Your task to perform on an android device: Search for vegetarian restaurants on Maps Image 0: 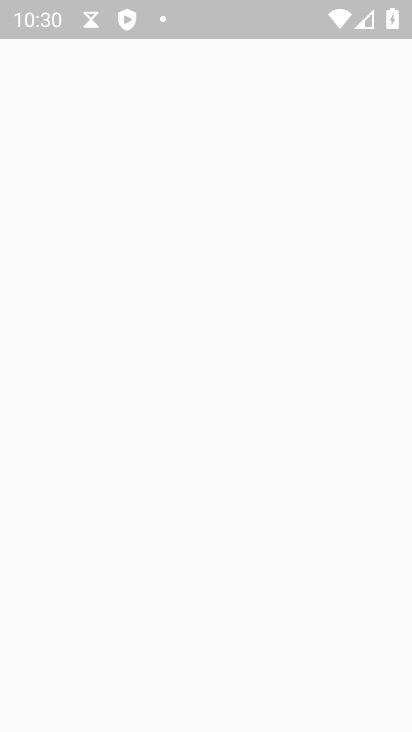
Step 0: press home button
Your task to perform on an android device: Search for vegetarian restaurants on Maps Image 1: 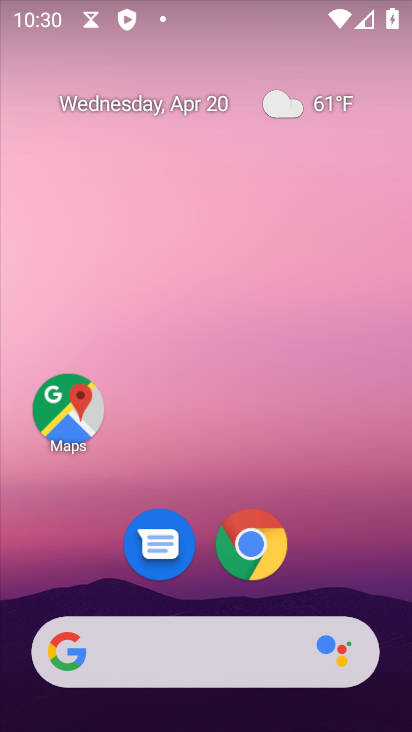
Step 1: drag from (170, 647) to (277, 194)
Your task to perform on an android device: Search for vegetarian restaurants on Maps Image 2: 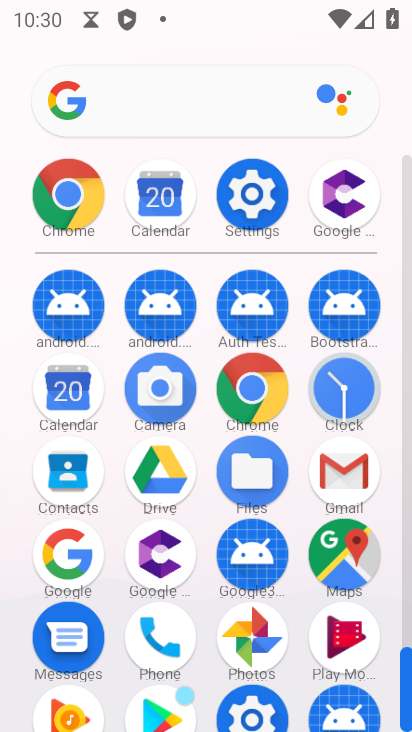
Step 2: click (339, 562)
Your task to perform on an android device: Search for vegetarian restaurants on Maps Image 3: 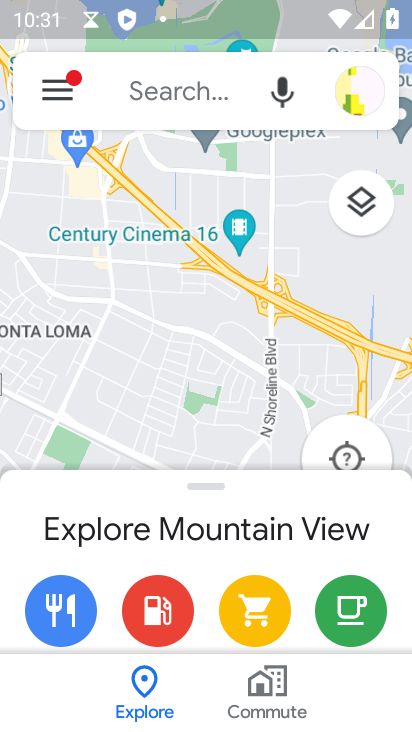
Step 3: click (178, 86)
Your task to perform on an android device: Search for vegetarian restaurants on Maps Image 4: 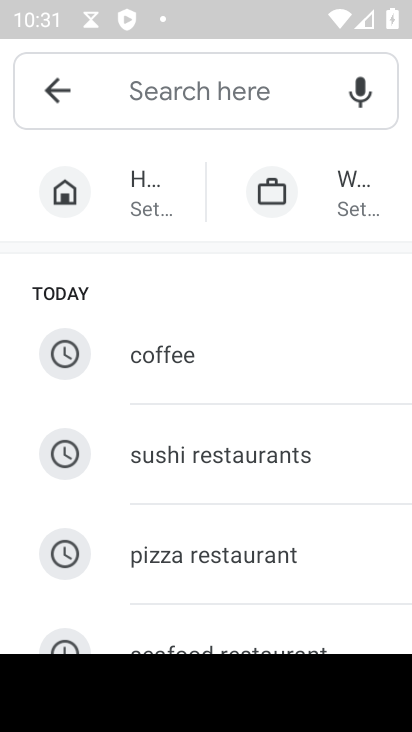
Step 4: drag from (202, 529) to (348, 177)
Your task to perform on an android device: Search for vegetarian restaurants on Maps Image 5: 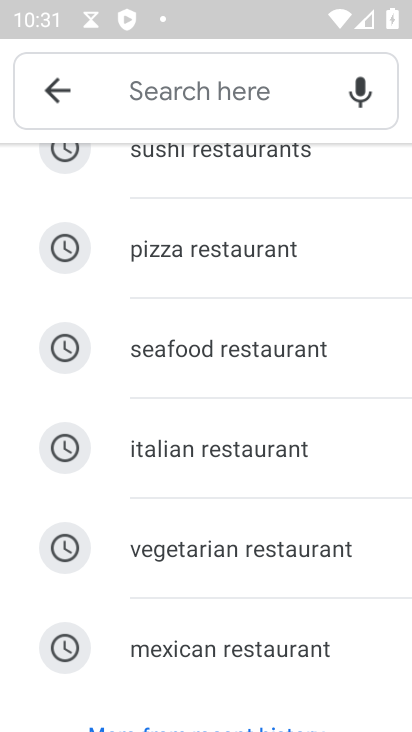
Step 5: click (205, 555)
Your task to perform on an android device: Search for vegetarian restaurants on Maps Image 6: 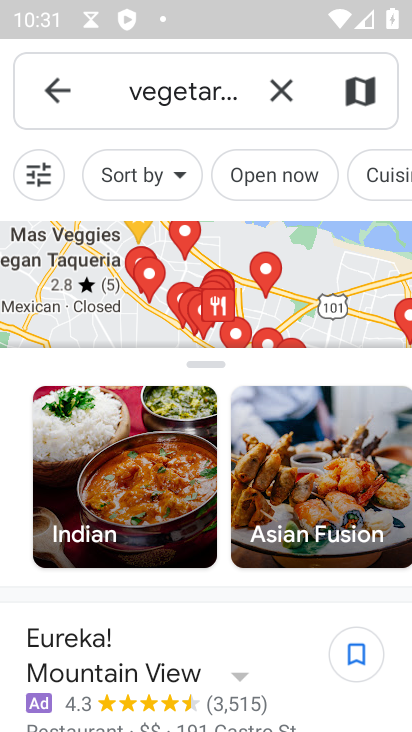
Step 6: task complete